Your task to perform on an android device: turn off airplane mode Image 0: 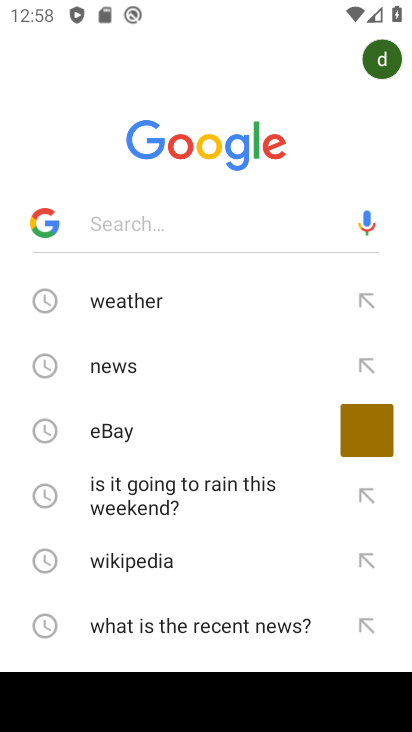
Step 0: press home button
Your task to perform on an android device: turn off airplane mode Image 1: 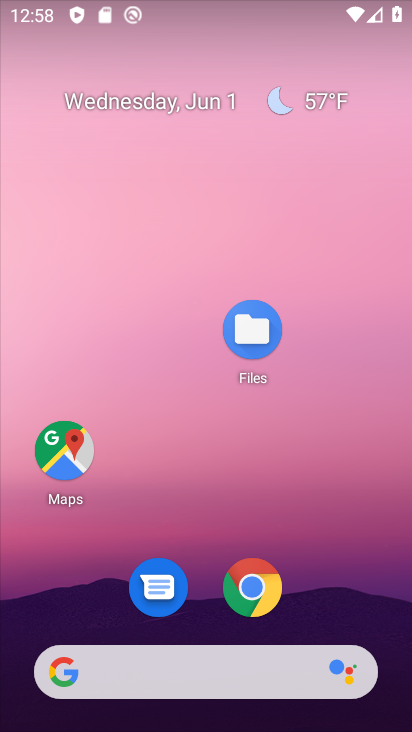
Step 1: task complete